Your task to perform on an android device: check android version Image 0: 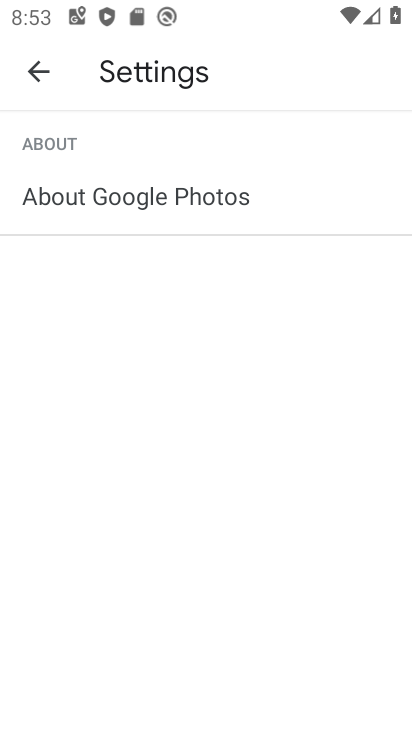
Step 0: press home button
Your task to perform on an android device: check android version Image 1: 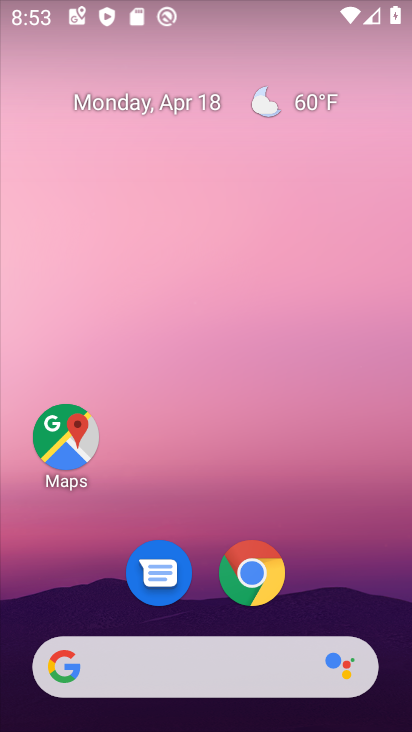
Step 1: drag from (319, 506) to (315, 51)
Your task to perform on an android device: check android version Image 2: 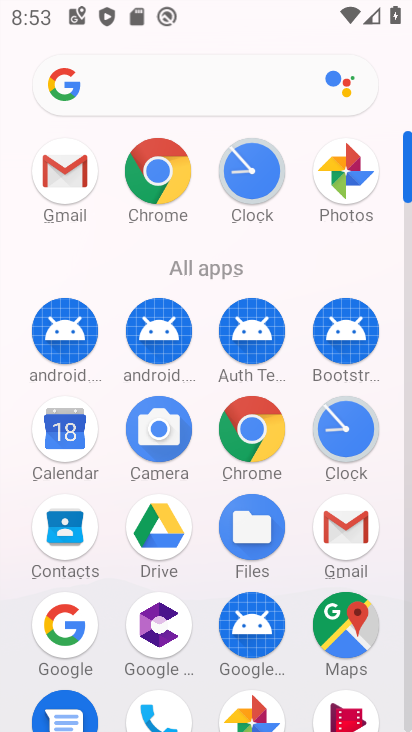
Step 2: drag from (194, 644) to (208, 175)
Your task to perform on an android device: check android version Image 3: 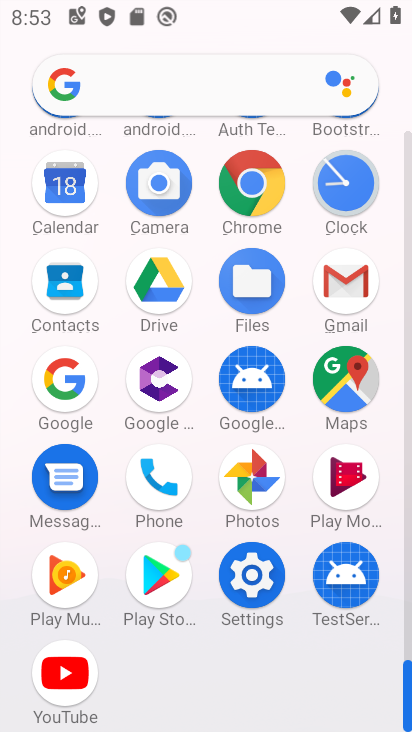
Step 3: click (252, 581)
Your task to perform on an android device: check android version Image 4: 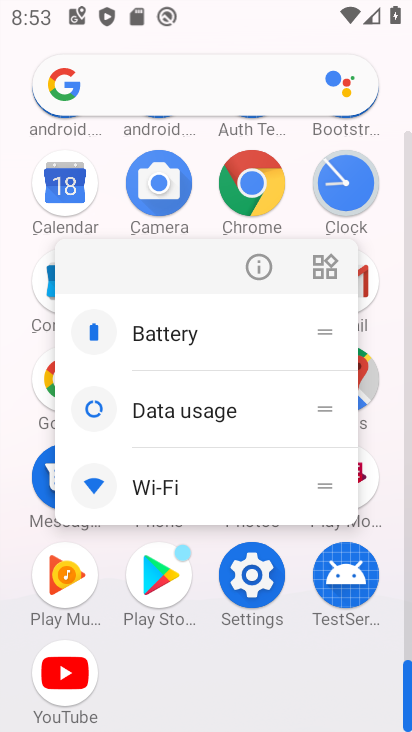
Step 4: click (252, 581)
Your task to perform on an android device: check android version Image 5: 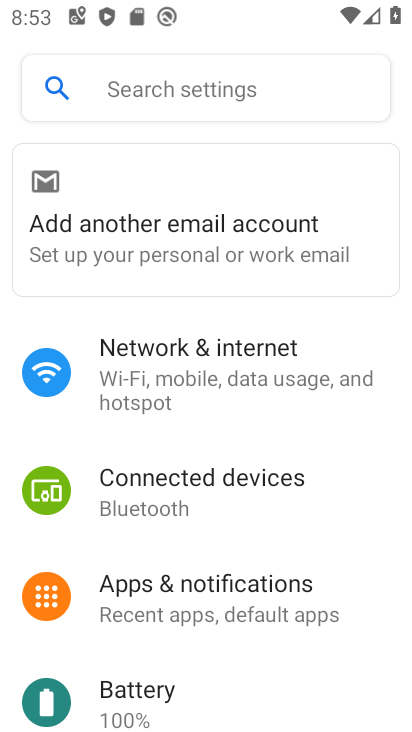
Step 5: drag from (207, 647) to (169, 119)
Your task to perform on an android device: check android version Image 6: 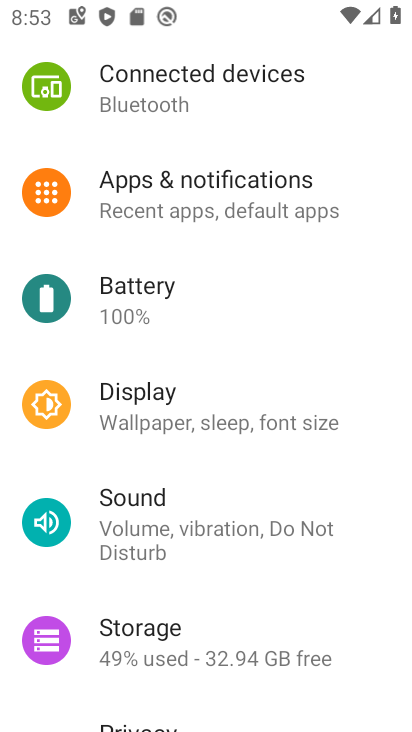
Step 6: drag from (192, 547) to (217, 81)
Your task to perform on an android device: check android version Image 7: 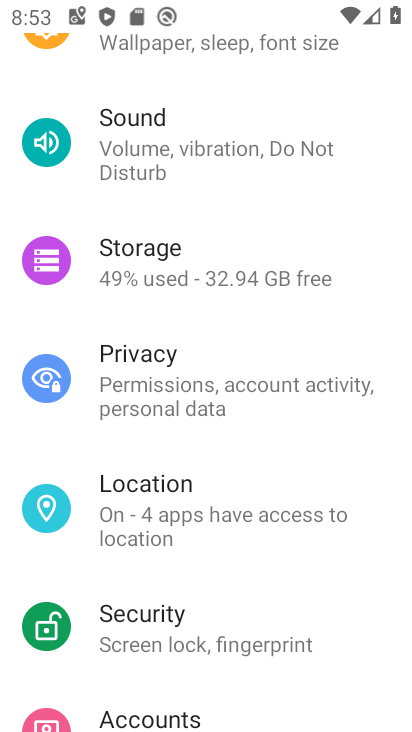
Step 7: drag from (322, 548) to (312, 65)
Your task to perform on an android device: check android version Image 8: 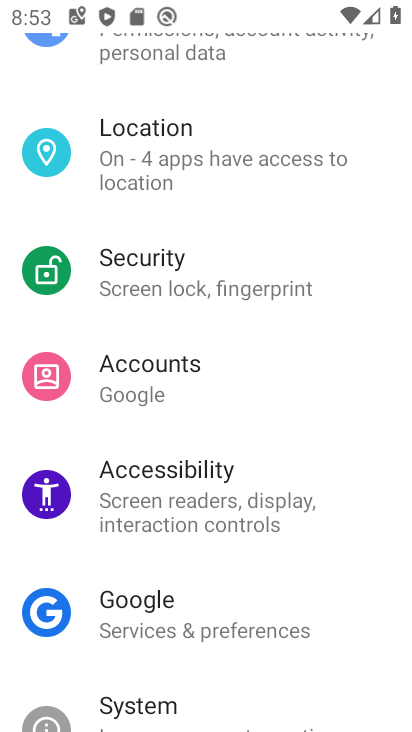
Step 8: drag from (182, 710) to (219, 184)
Your task to perform on an android device: check android version Image 9: 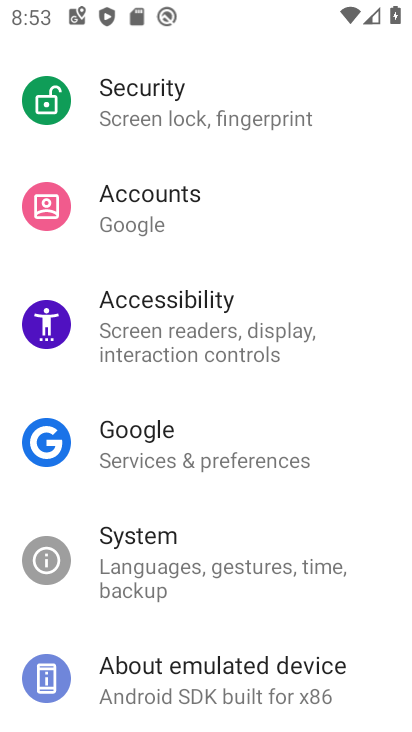
Step 9: click (250, 681)
Your task to perform on an android device: check android version Image 10: 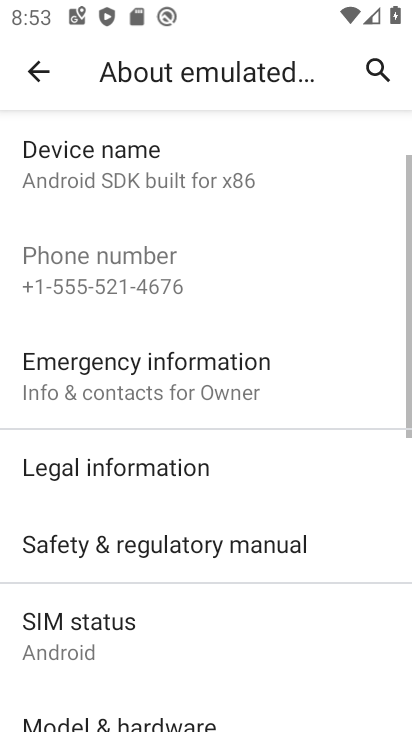
Step 10: drag from (115, 624) to (181, 228)
Your task to perform on an android device: check android version Image 11: 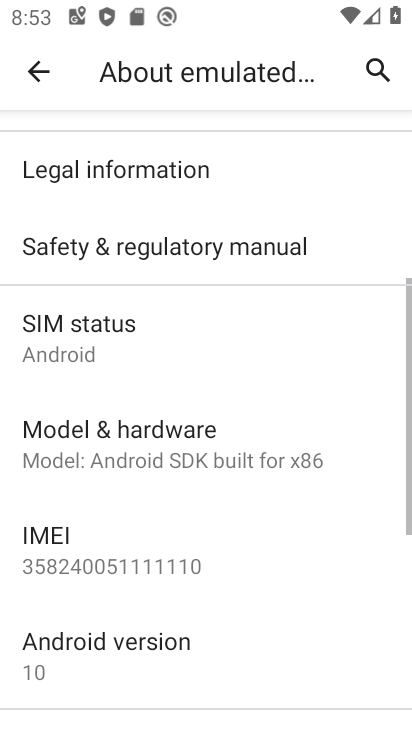
Step 11: click (91, 647)
Your task to perform on an android device: check android version Image 12: 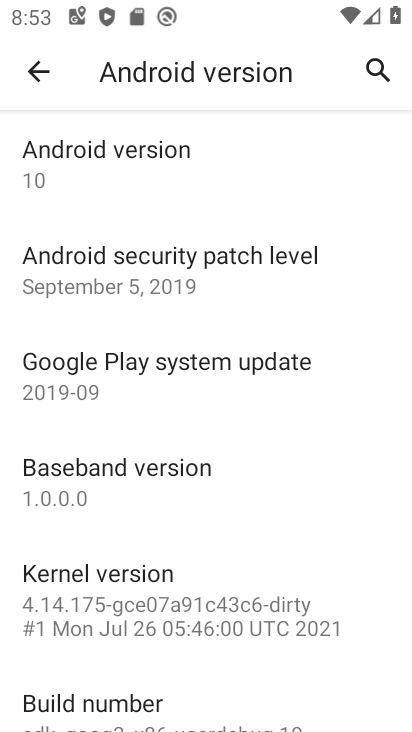
Step 12: task complete